Your task to perform on an android device: Open Chrome and go to settings Image 0: 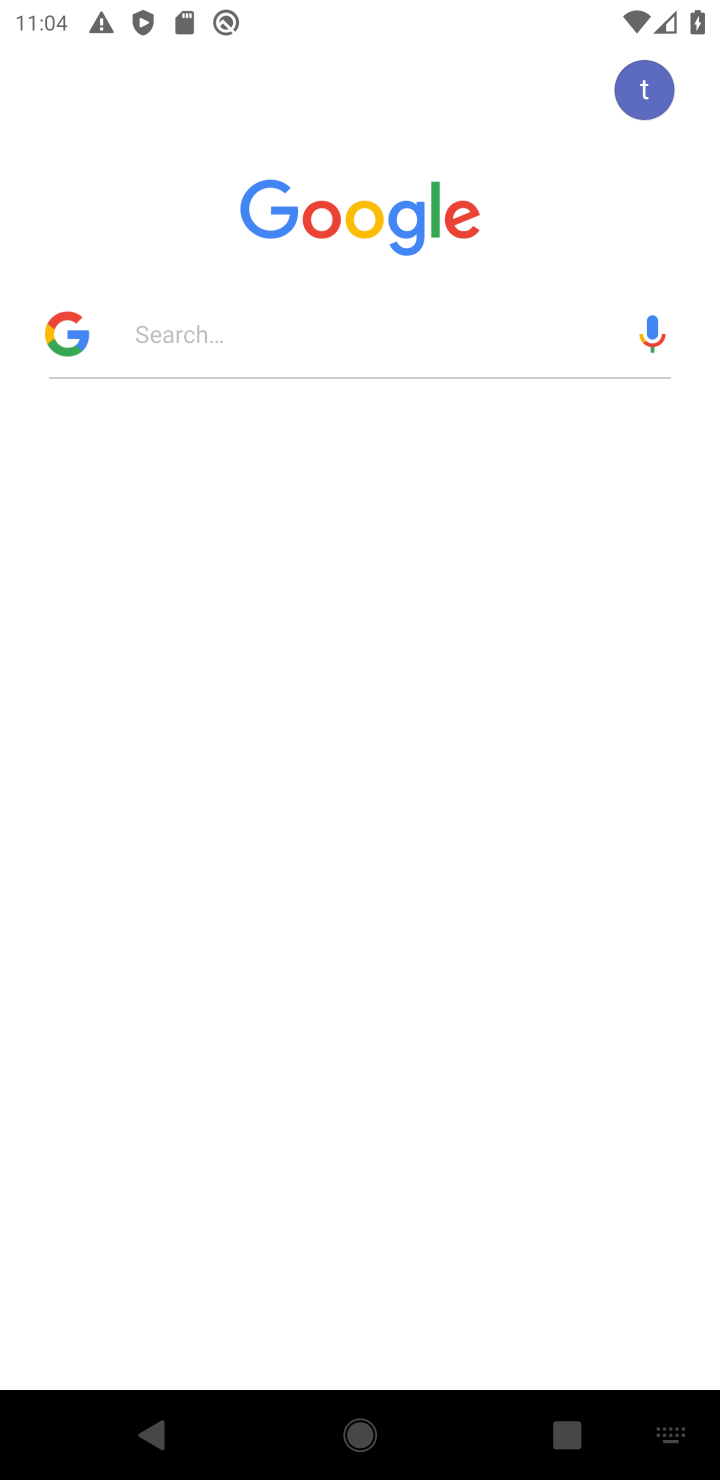
Step 0: press home button
Your task to perform on an android device: Open Chrome and go to settings Image 1: 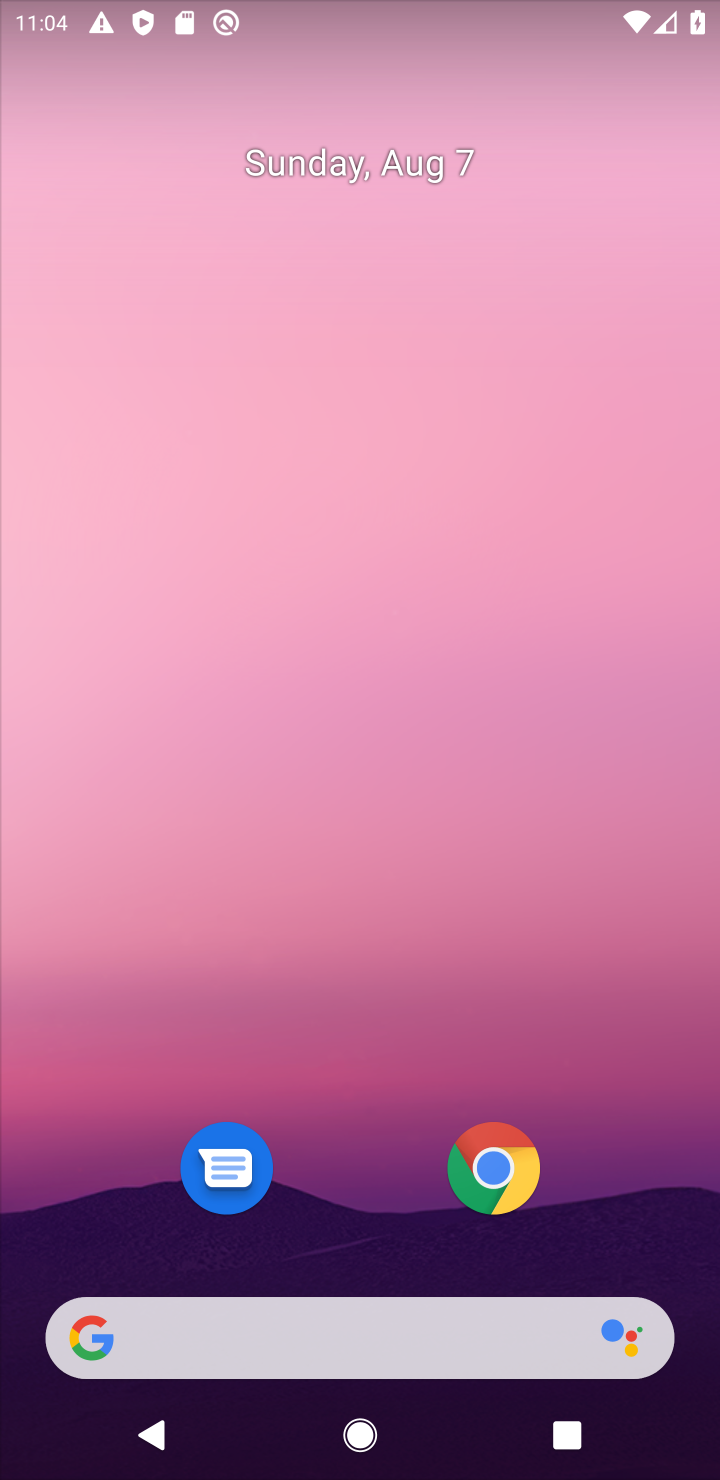
Step 1: click (473, 1206)
Your task to perform on an android device: Open Chrome and go to settings Image 2: 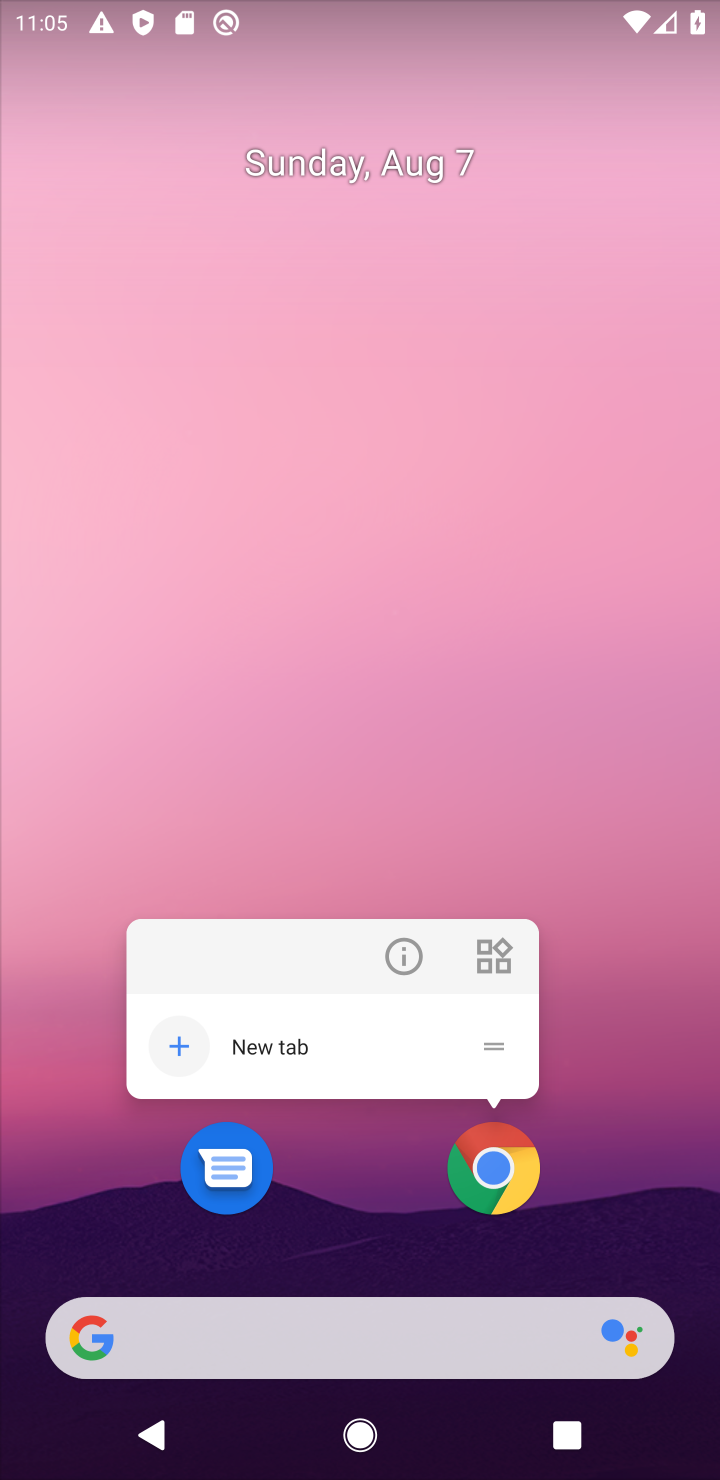
Step 2: click (473, 1206)
Your task to perform on an android device: Open Chrome and go to settings Image 3: 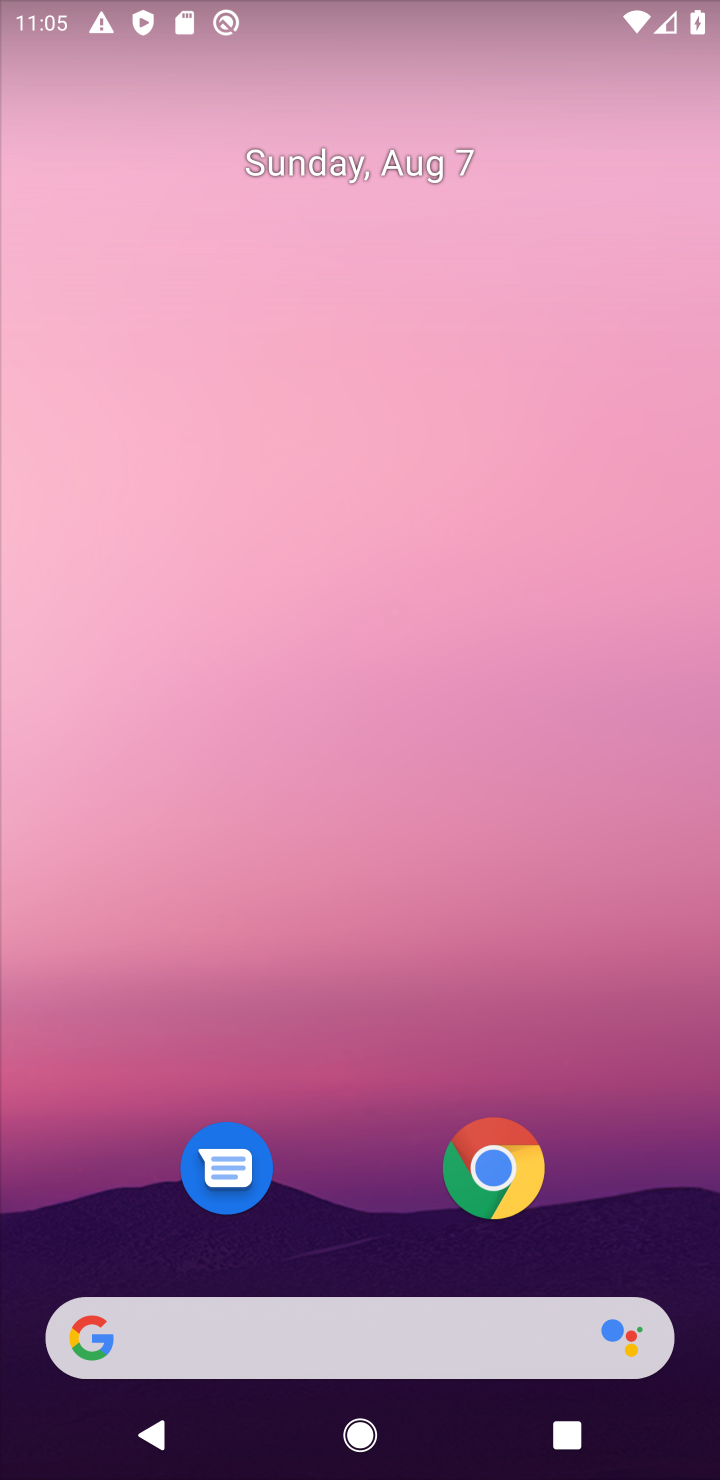
Step 3: click (473, 1206)
Your task to perform on an android device: Open Chrome and go to settings Image 4: 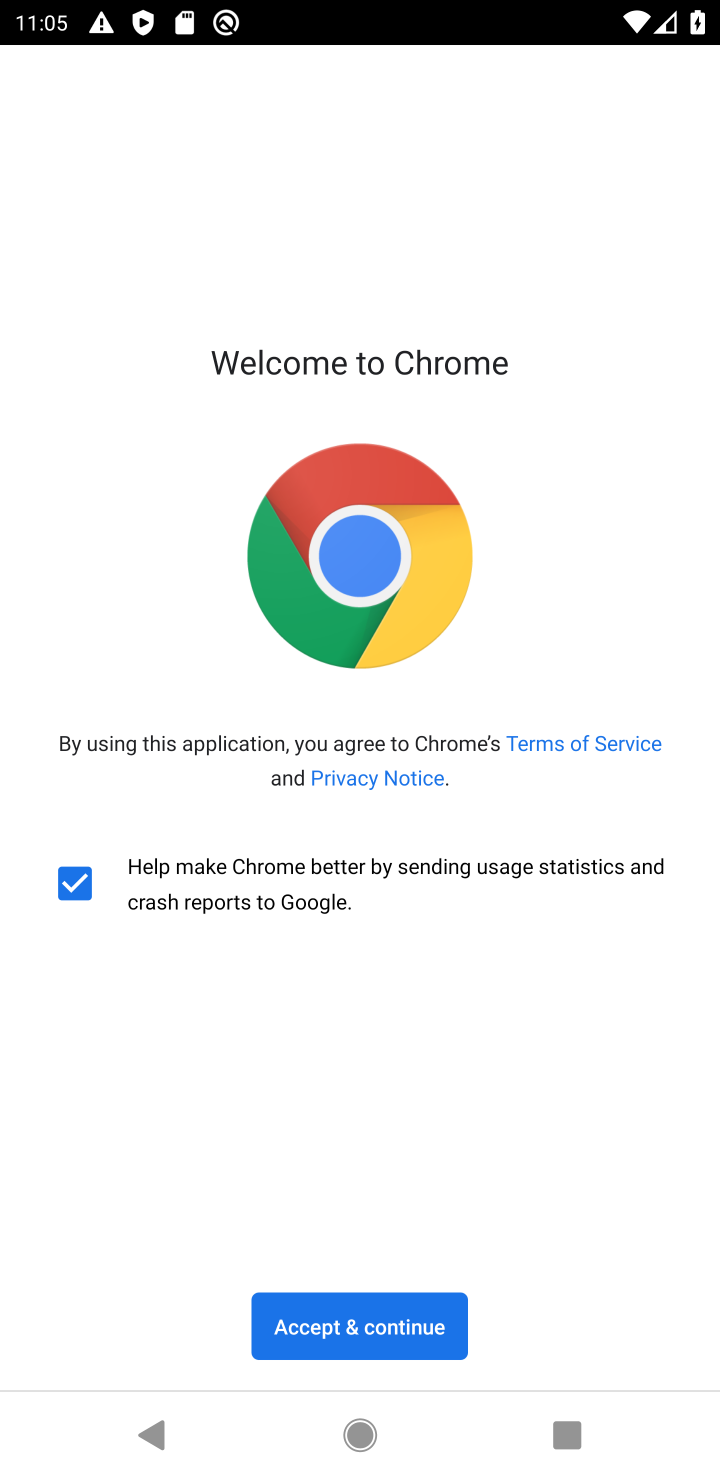
Step 4: click (427, 1334)
Your task to perform on an android device: Open Chrome and go to settings Image 5: 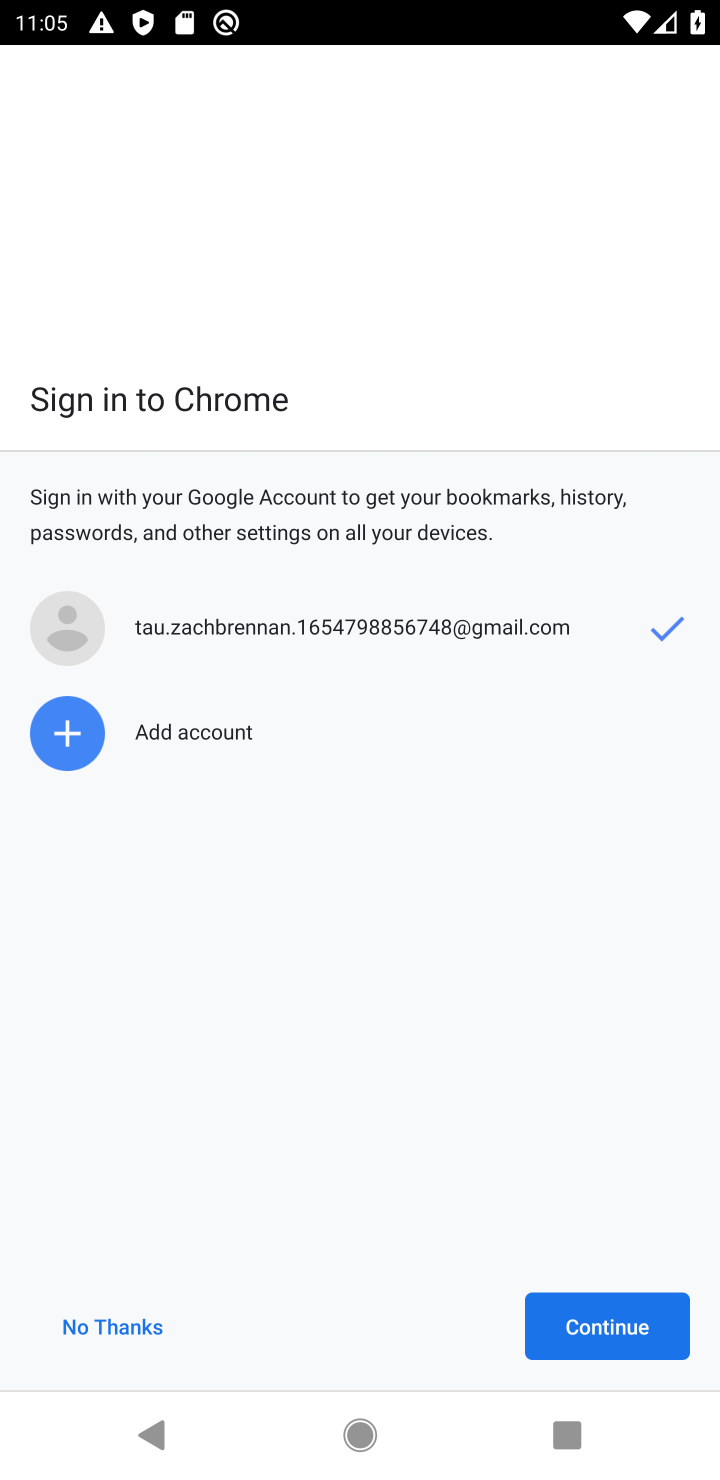
Step 5: click (611, 1306)
Your task to perform on an android device: Open Chrome and go to settings Image 6: 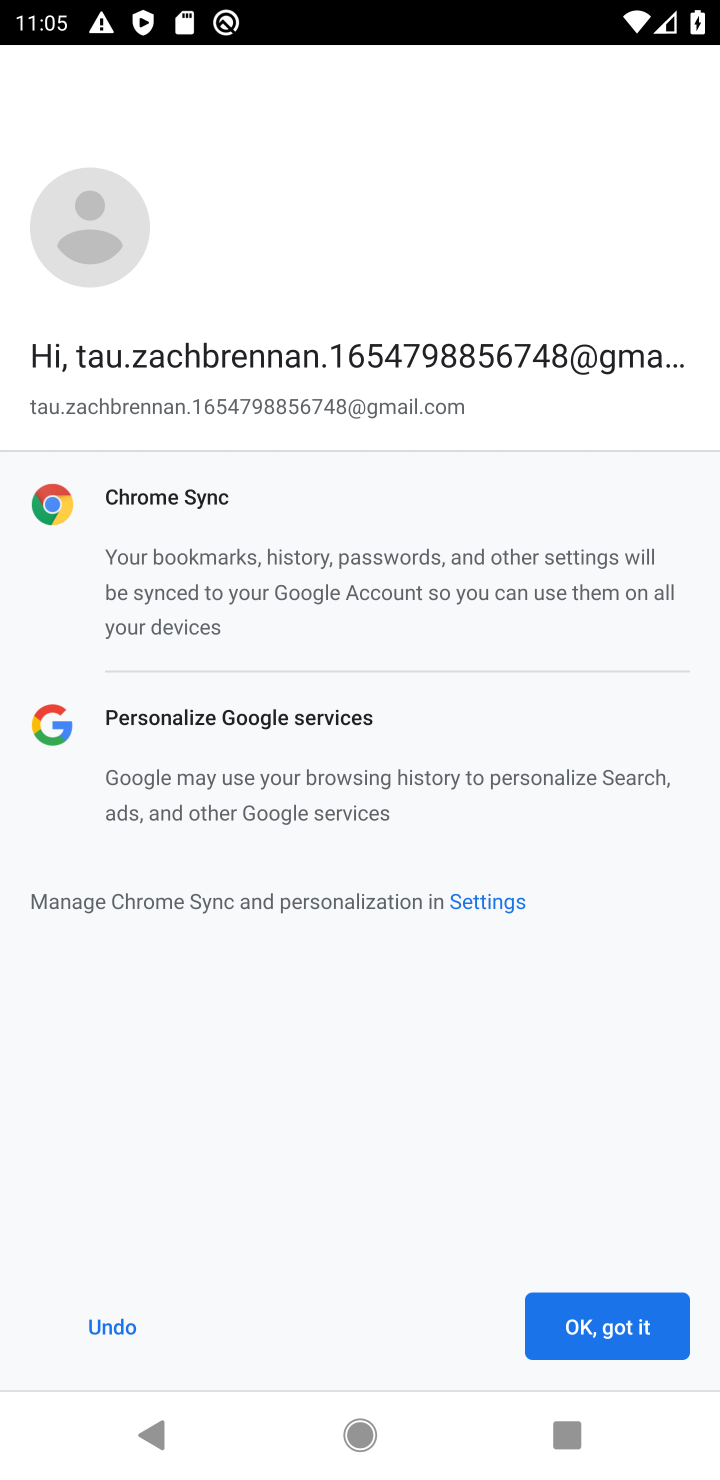
Step 6: click (613, 1305)
Your task to perform on an android device: Open Chrome and go to settings Image 7: 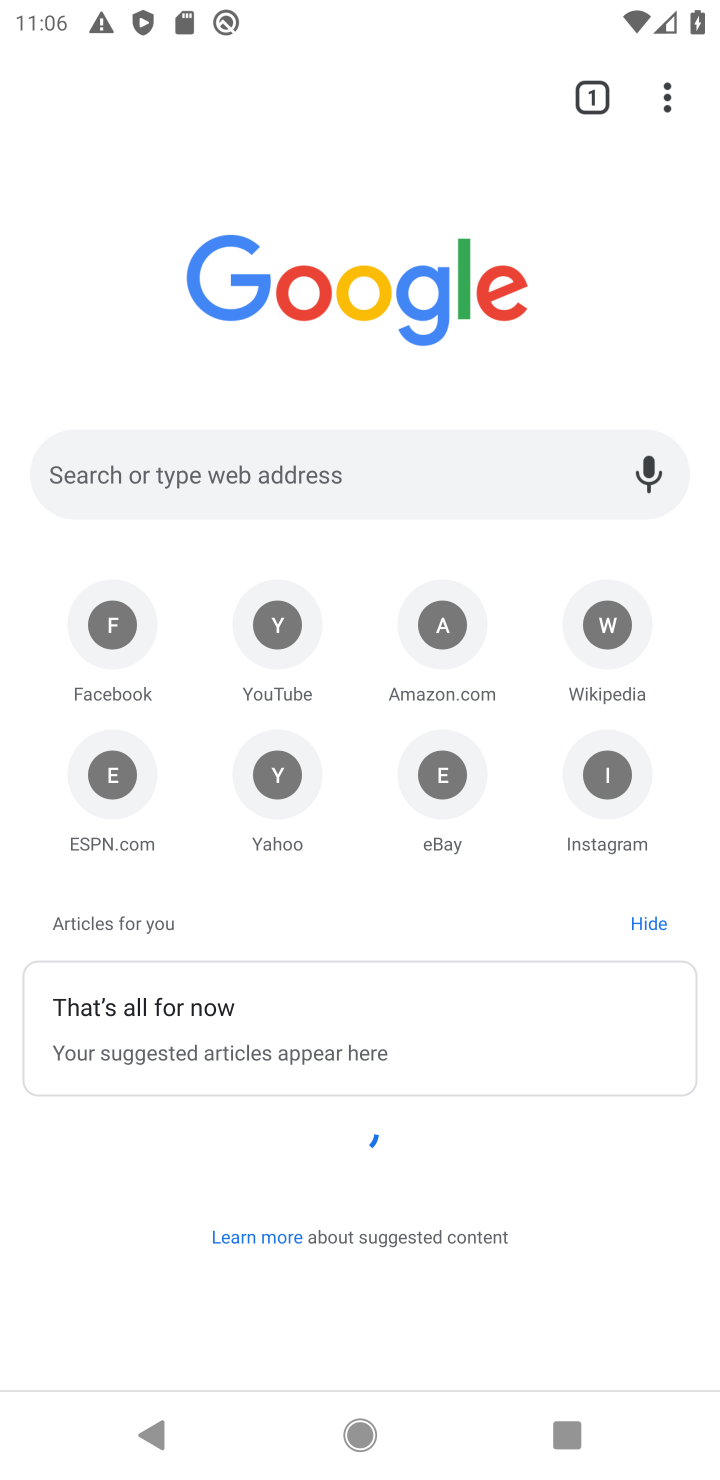
Step 7: task complete